Your task to perform on an android device: turn off location Image 0: 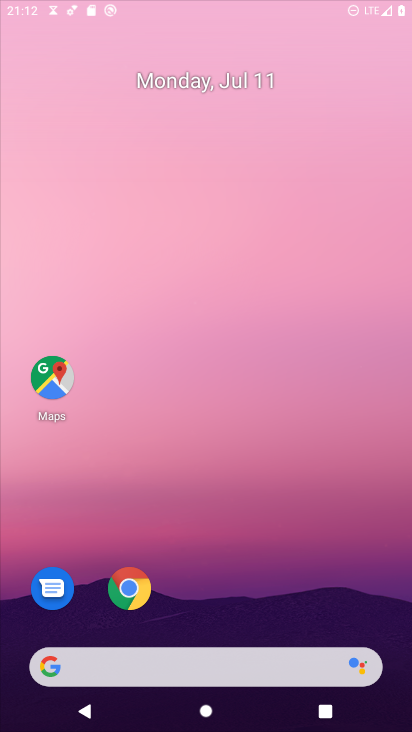
Step 0: press home button
Your task to perform on an android device: turn off location Image 1: 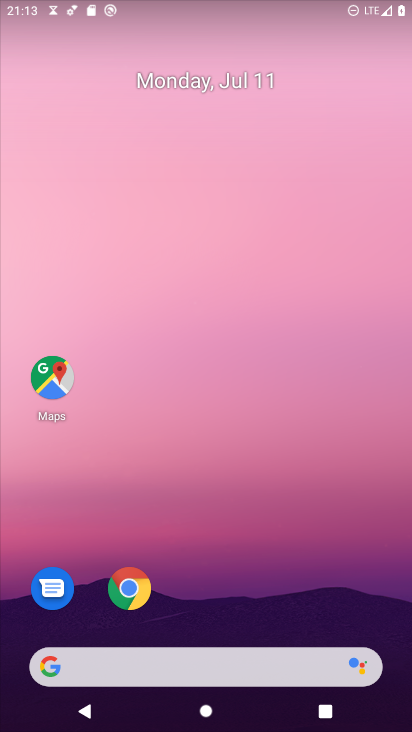
Step 1: drag from (181, 628) to (181, 165)
Your task to perform on an android device: turn off location Image 2: 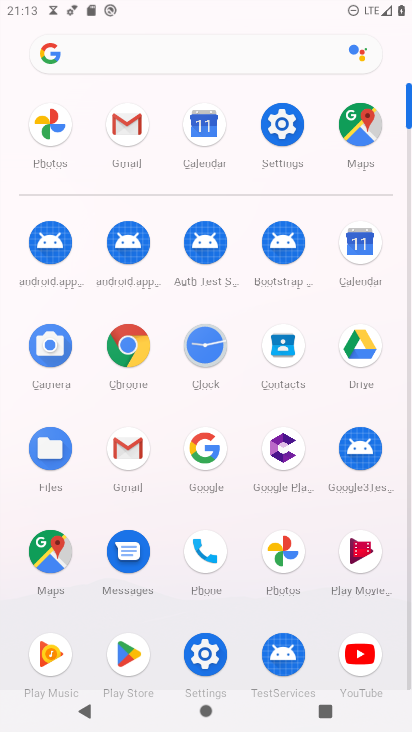
Step 2: click (285, 116)
Your task to perform on an android device: turn off location Image 3: 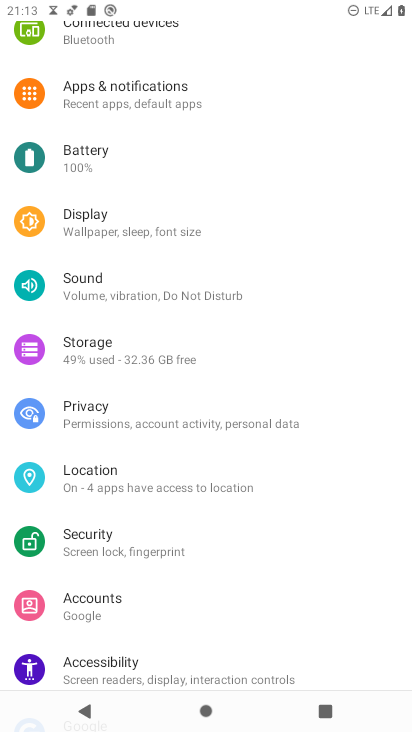
Step 3: click (76, 491)
Your task to perform on an android device: turn off location Image 4: 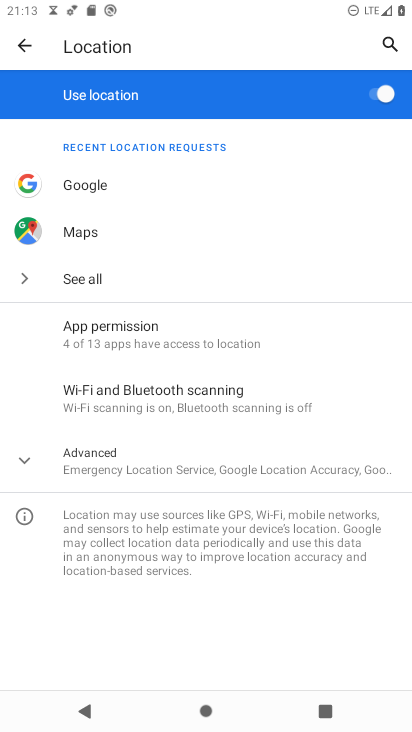
Step 4: click (384, 96)
Your task to perform on an android device: turn off location Image 5: 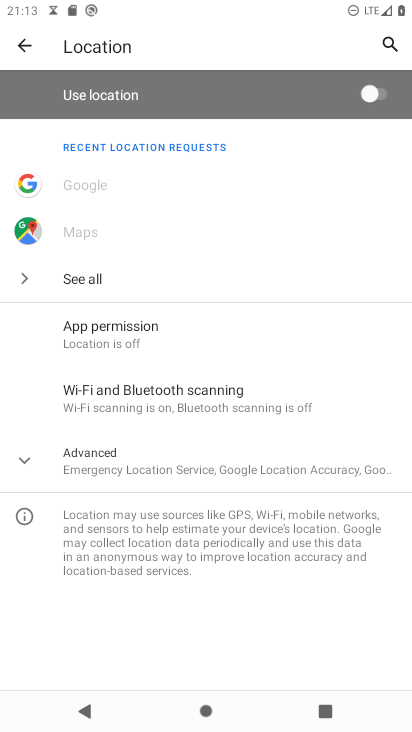
Step 5: task complete